Your task to perform on an android device: toggle notification dots Image 0: 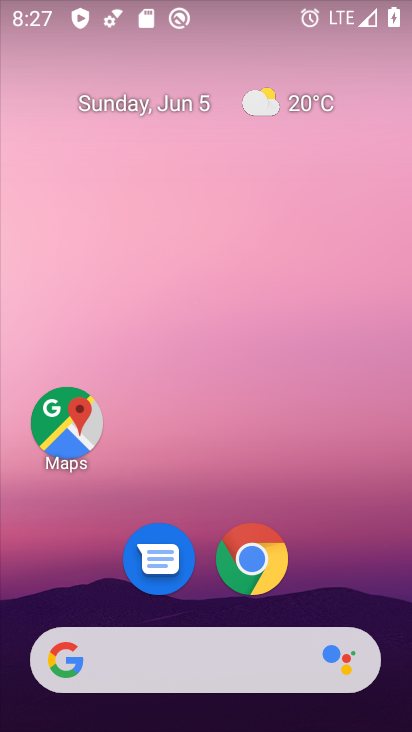
Step 0: drag from (350, 510) to (317, 150)
Your task to perform on an android device: toggle notification dots Image 1: 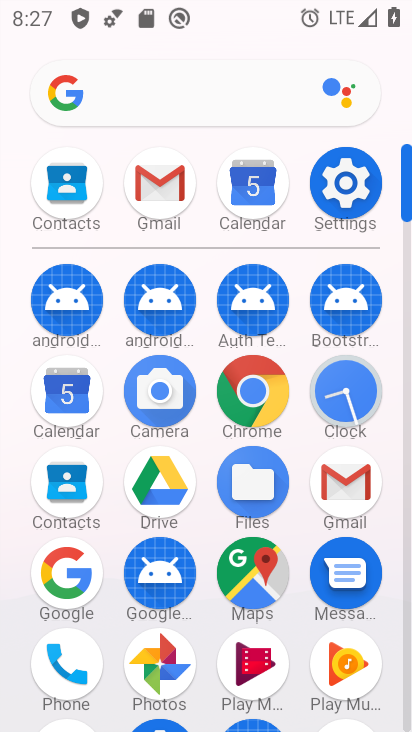
Step 1: click (340, 176)
Your task to perform on an android device: toggle notification dots Image 2: 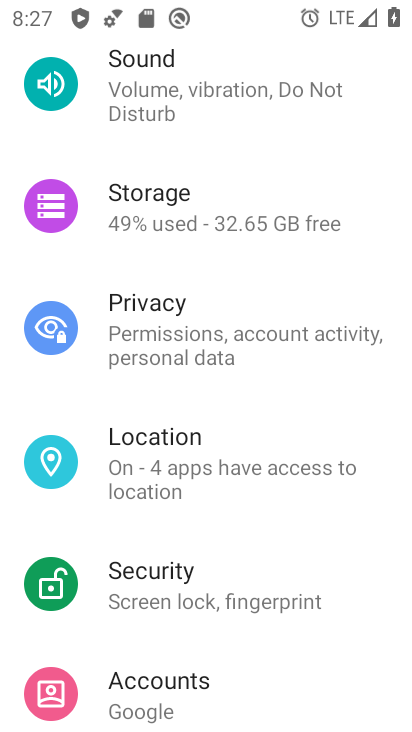
Step 2: drag from (266, 140) to (292, 620)
Your task to perform on an android device: toggle notification dots Image 3: 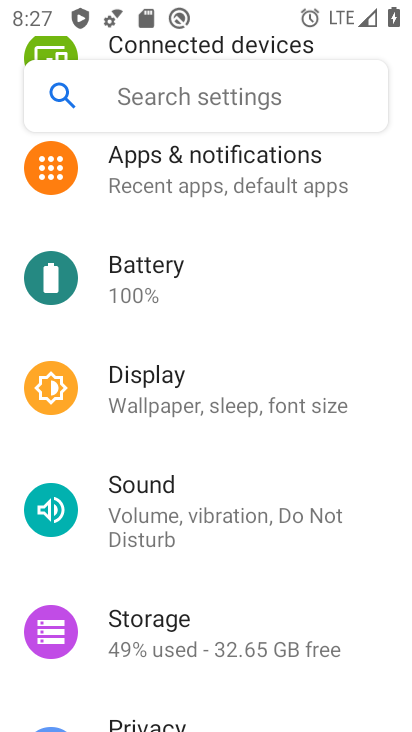
Step 3: drag from (225, 224) to (244, 500)
Your task to perform on an android device: toggle notification dots Image 4: 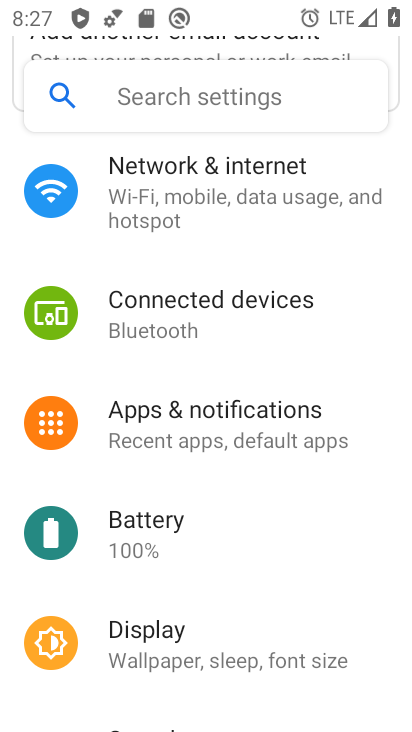
Step 4: click (220, 432)
Your task to perform on an android device: toggle notification dots Image 5: 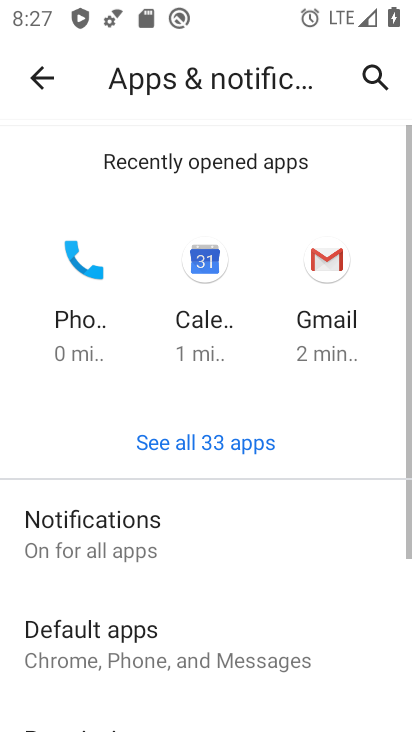
Step 5: click (101, 535)
Your task to perform on an android device: toggle notification dots Image 6: 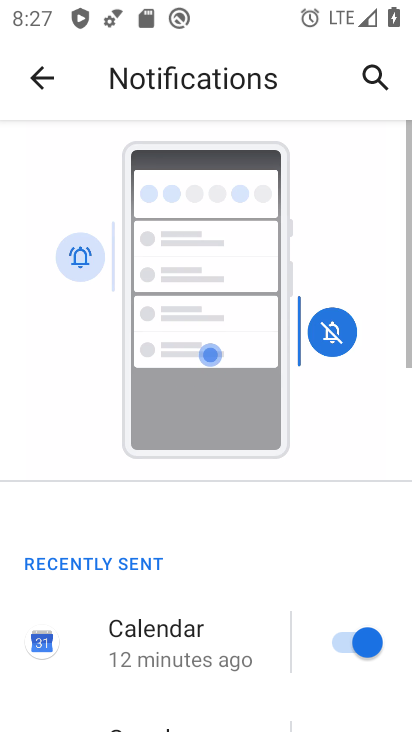
Step 6: drag from (271, 574) to (303, 59)
Your task to perform on an android device: toggle notification dots Image 7: 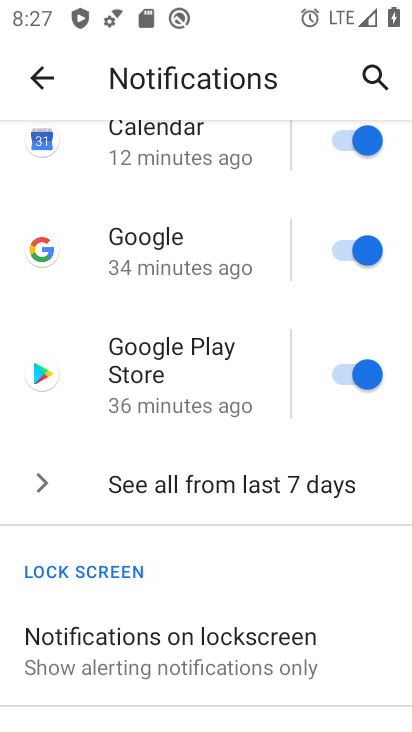
Step 7: drag from (253, 631) to (236, 81)
Your task to perform on an android device: toggle notification dots Image 8: 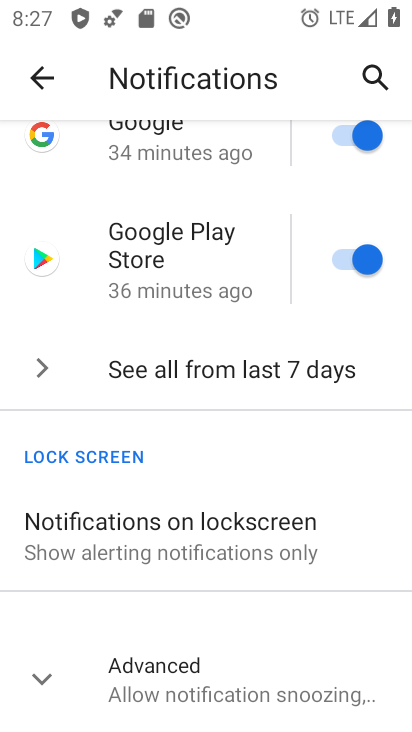
Step 8: click (157, 689)
Your task to perform on an android device: toggle notification dots Image 9: 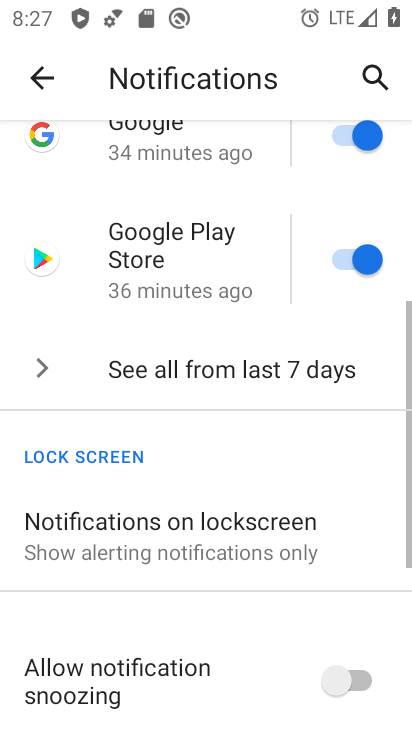
Step 9: drag from (211, 612) to (246, 129)
Your task to perform on an android device: toggle notification dots Image 10: 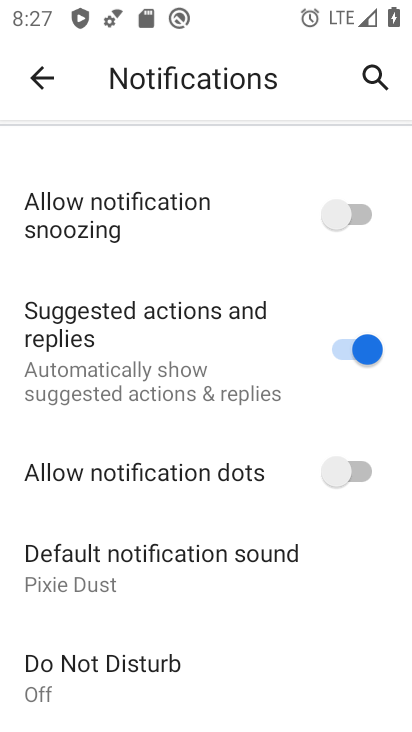
Step 10: click (348, 479)
Your task to perform on an android device: toggle notification dots Image 11: 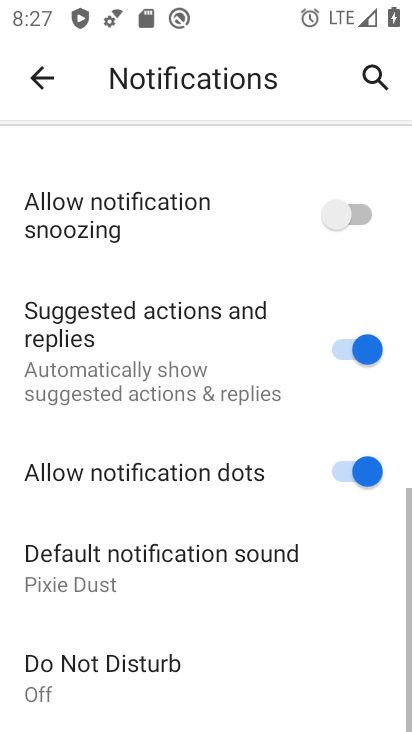
Step 11: task complete